Your task to perform on an android device: turn on notifications settings in the gmail app Image 0: 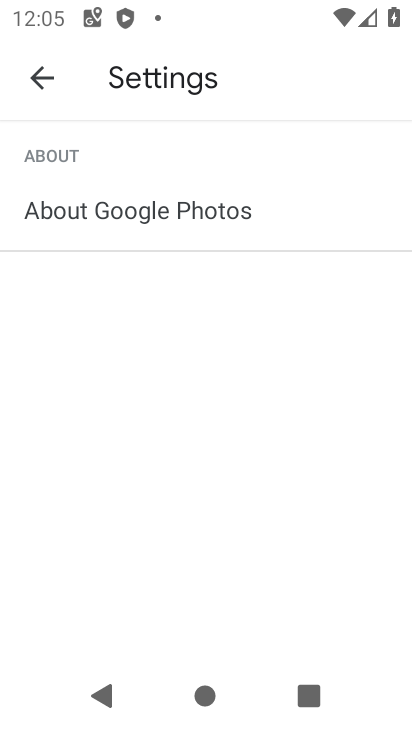
Step 0: press home button
Your task to perform on an android device: turn on notifications settings in the gmail app Image 1: 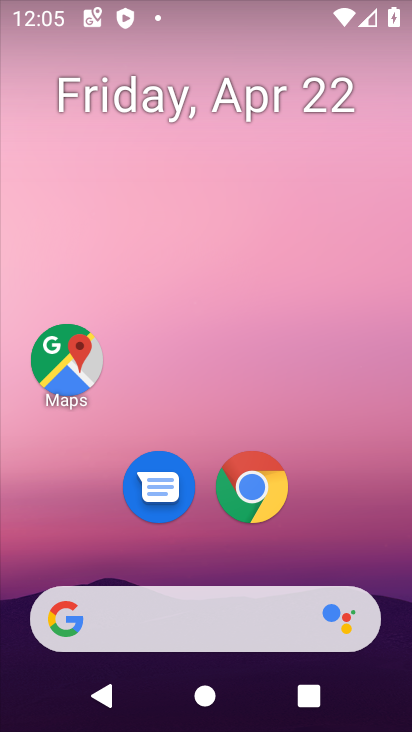
Step 1: drag from (333, 519) to (335, 95)
Your task to perform on an android device: turn on notifications settings in the gmail app Image 2: 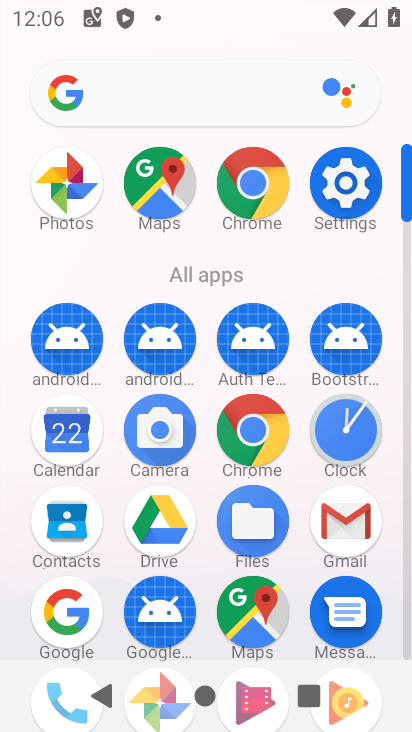
Step 2: click (348, 182)
Your task to perform on an android device: turn on notifications settings in the gmail app Image 3: 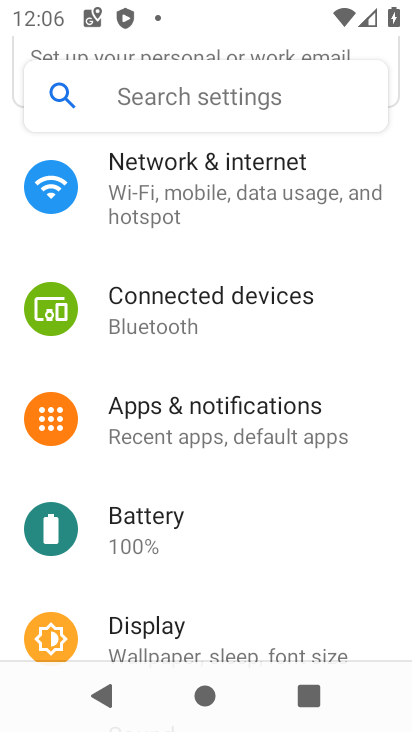
Step 3: click (243, 409)
Your task to perform on an android device: turn on notifications settings in the gmail app Image 4: 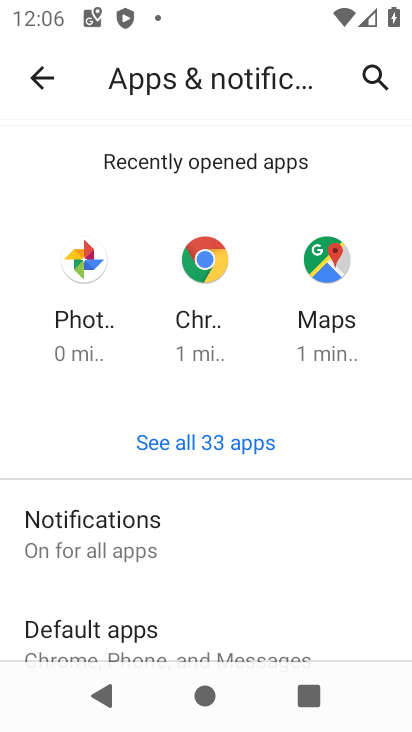
Step 4: click (245, 438)
Your task to perform on an android device: turn on notifications settings in the gmail app Image 5: 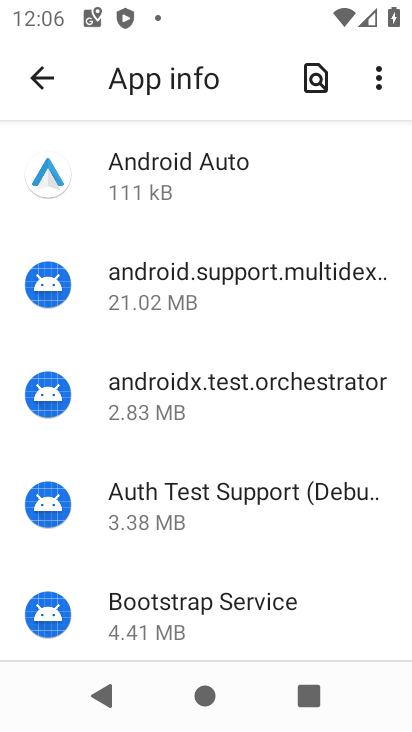
Step 5: drag from (251, 544) to (228, 175)
Your task to perform on an android device: turn on notifications settings in the gmail app Image 6: 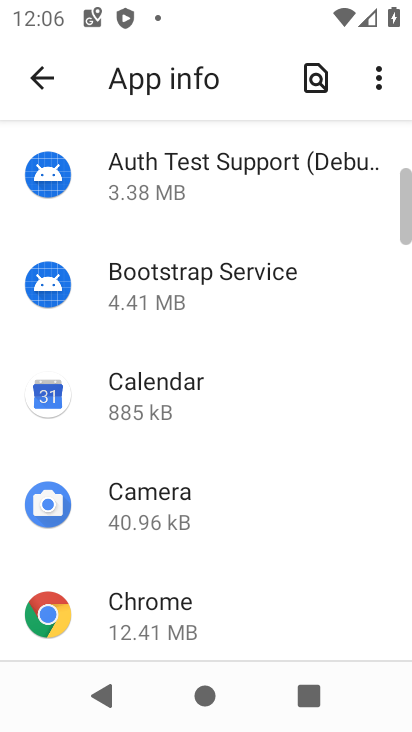
Step 6: drag from (236, 525) to (233, 246)
Your task to perform on an android device: turn on notifications settings in the gmail app Image 7: 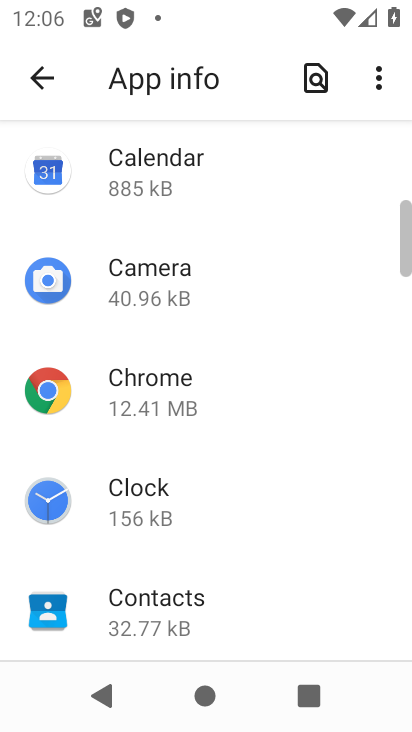
Step 7: drag from (223, 521) to (225, 176)
Your task to perform on an android device: turn on notifications settings in the gmail app Image 8: 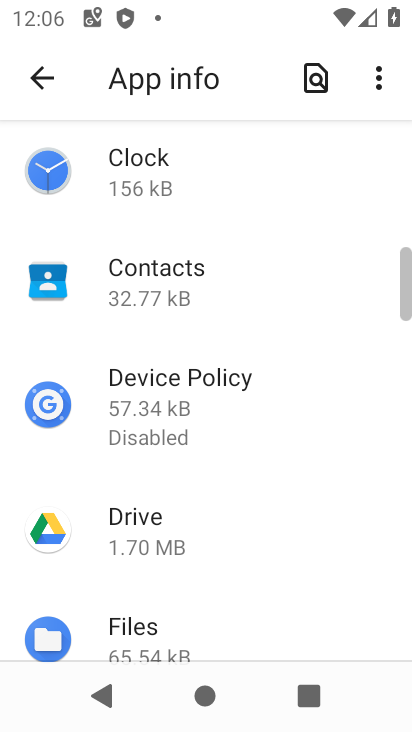
Step 8: drag from (223, 542) to (220, 257)
Your task to perform on an android device: turn on notifications settings in the gmail app Image 9: 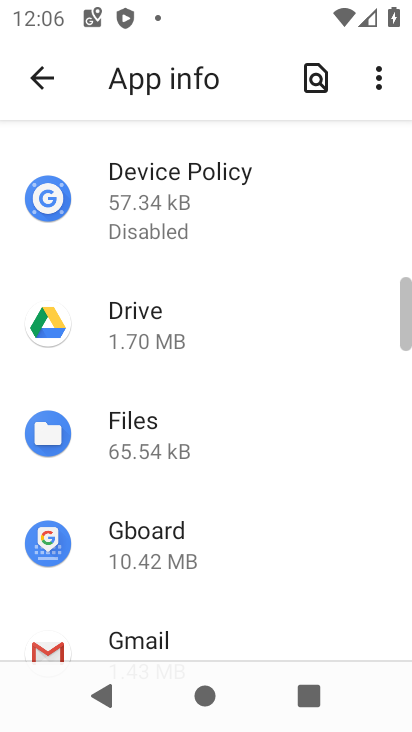
Step 9: drag from (220, 504) to (223, 259)
Your task to perform on an android device: turn on notifications settings in the gmail app Image 10: 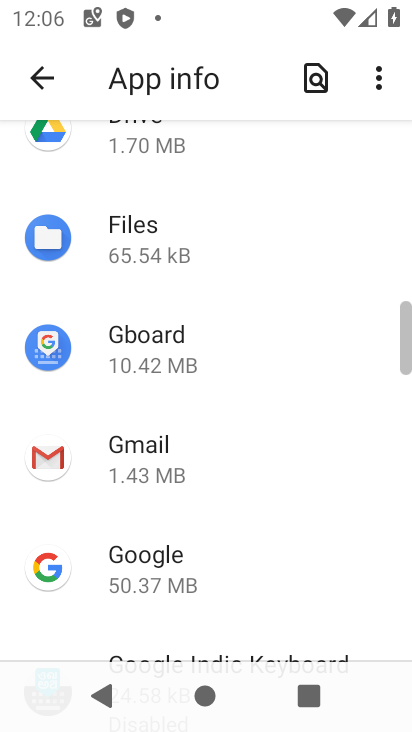
Step 10: click (154, 458)
Your task to perform on an android device: turn on notifications settings in the gmail app Image 11: 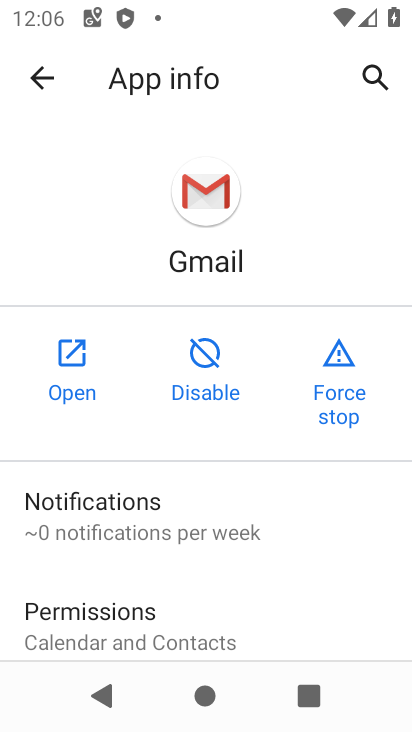
Step 11: click (154, 514)
Your task to perform on an android device: turn on notifications settings in the gmail app Image 12: 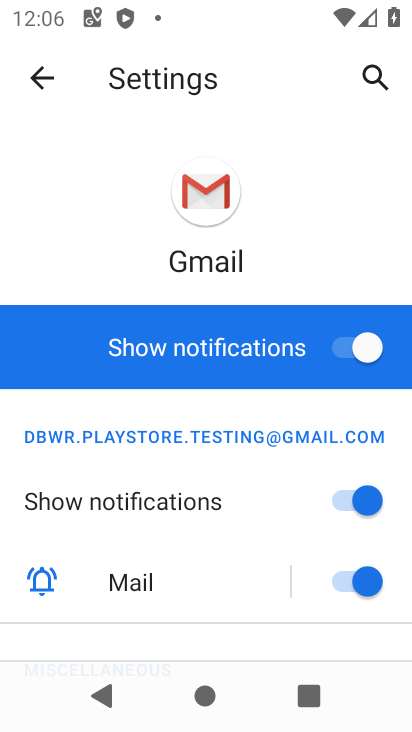
Step 12: task complete